Your task to perform on an android device: turn on sleep mode Image 0: 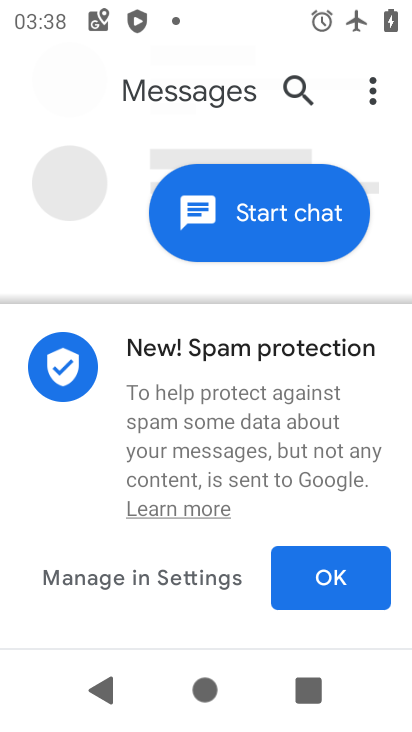
Step 0: press home button
Your task to perform on an android device: turn on sleep mode Image 1: 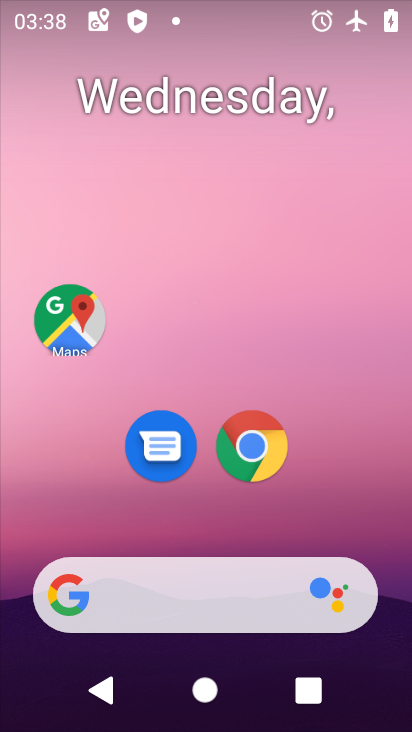
Step 1: drag from (188, 532) to (196, 251)
Your task to perform on an android device: turn on sleep mode Image 2: 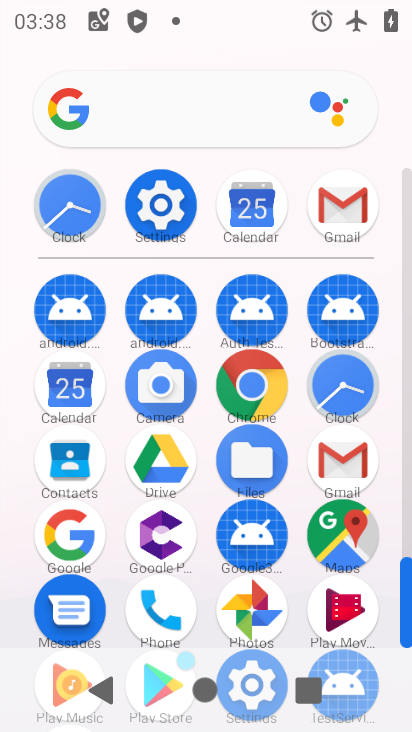
Step 2: click (176, 211)
Your task to perform on an android device: turn on sleep mode Image 3: 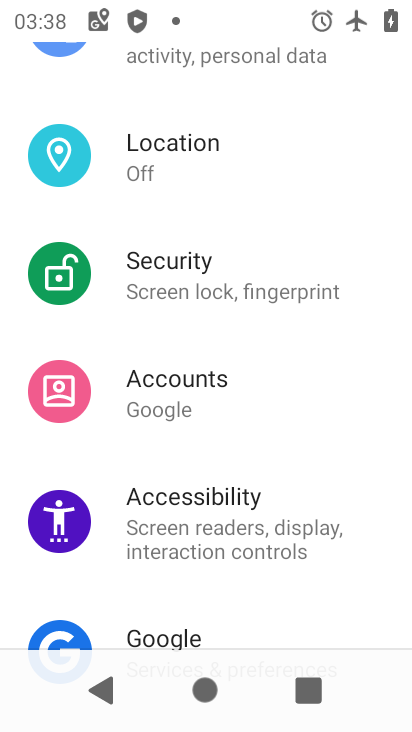
Step 3: drag from (203, 231) to (256, 449)
Your task to perform on an android device: turn on sleep mode Image 4: 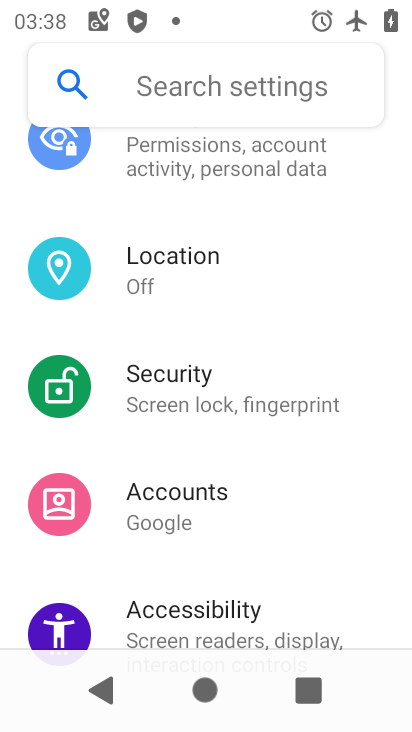
Step 4: drag from (229, 254) to (229, 491)
Your task to perform on an android device: turn on sleep mode Image 5: 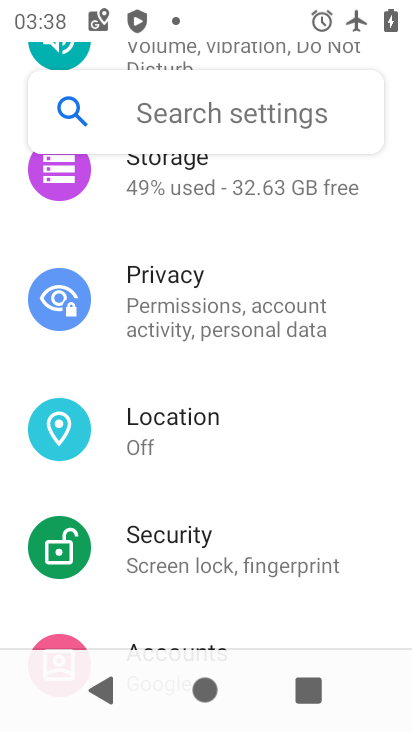
Step 5: drag from (223, 252) to (220, 443)
Your task to perform on an android device: turn on sleep mode Image 6: 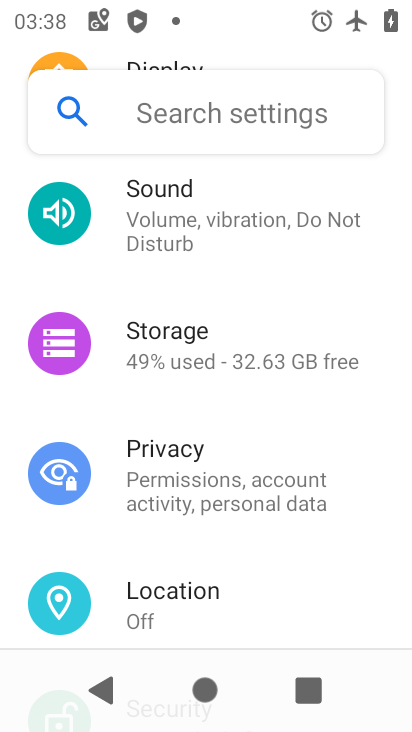
Step 6: drag from (211, 251) to (211, 477)
Your task to perform on an android device: turn on sleep mode Image 7: 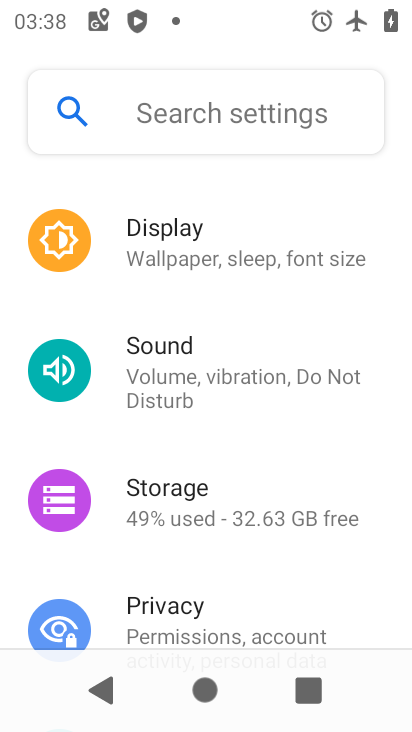
Step 7: drag from (223, 264) to (223, 420)
Your task to perform on an android device: turn on sleep mode Image 8: 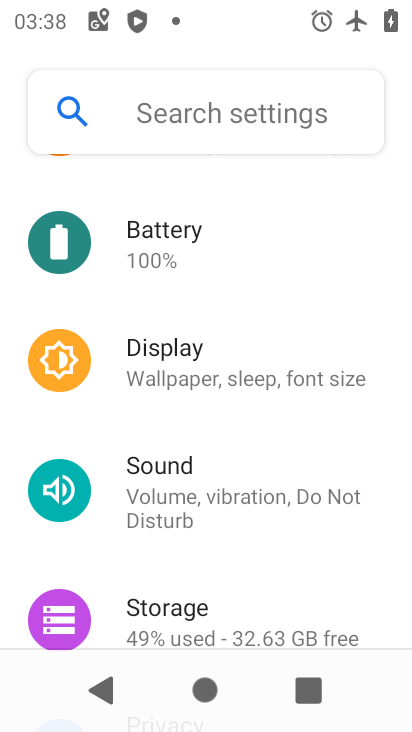
Step 8: click (209, 386)
Your task to perform on an android device: turn on sleep mode Image 9: 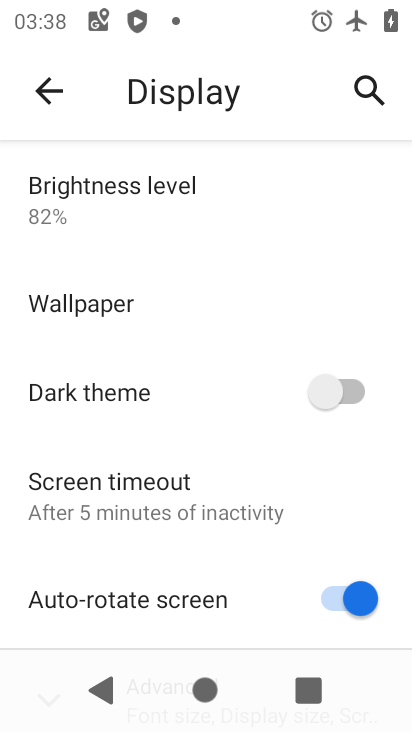
Step 9: click (172, 516)
Your task to perform on an android device: turn on sleep mode Image 10: 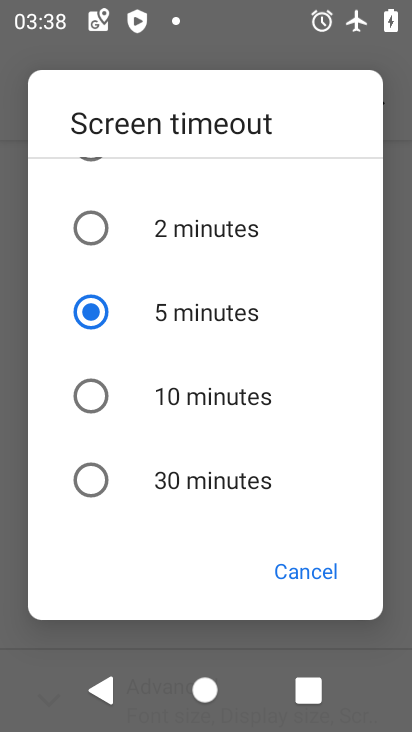
Step 10: click (181, 460)
Your task to perform on an android device: turn on sleep mode Image 11: 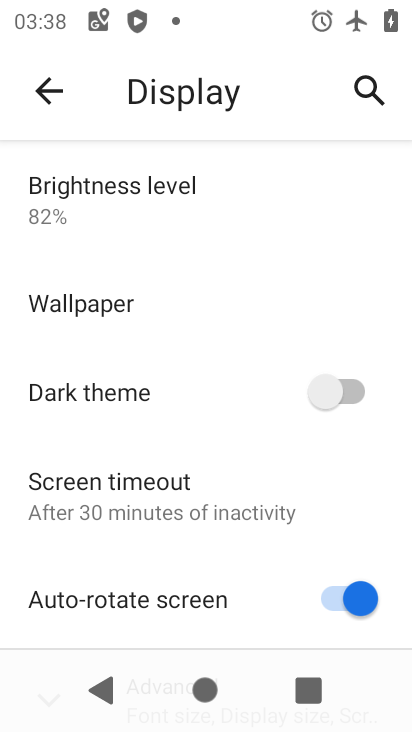
Step 11: task complete